Your task to perform on an android device: Empty the shopping cart on target. Search for usb-c to usb-b on target, select the first entry, and add it to the cart. Image 0: 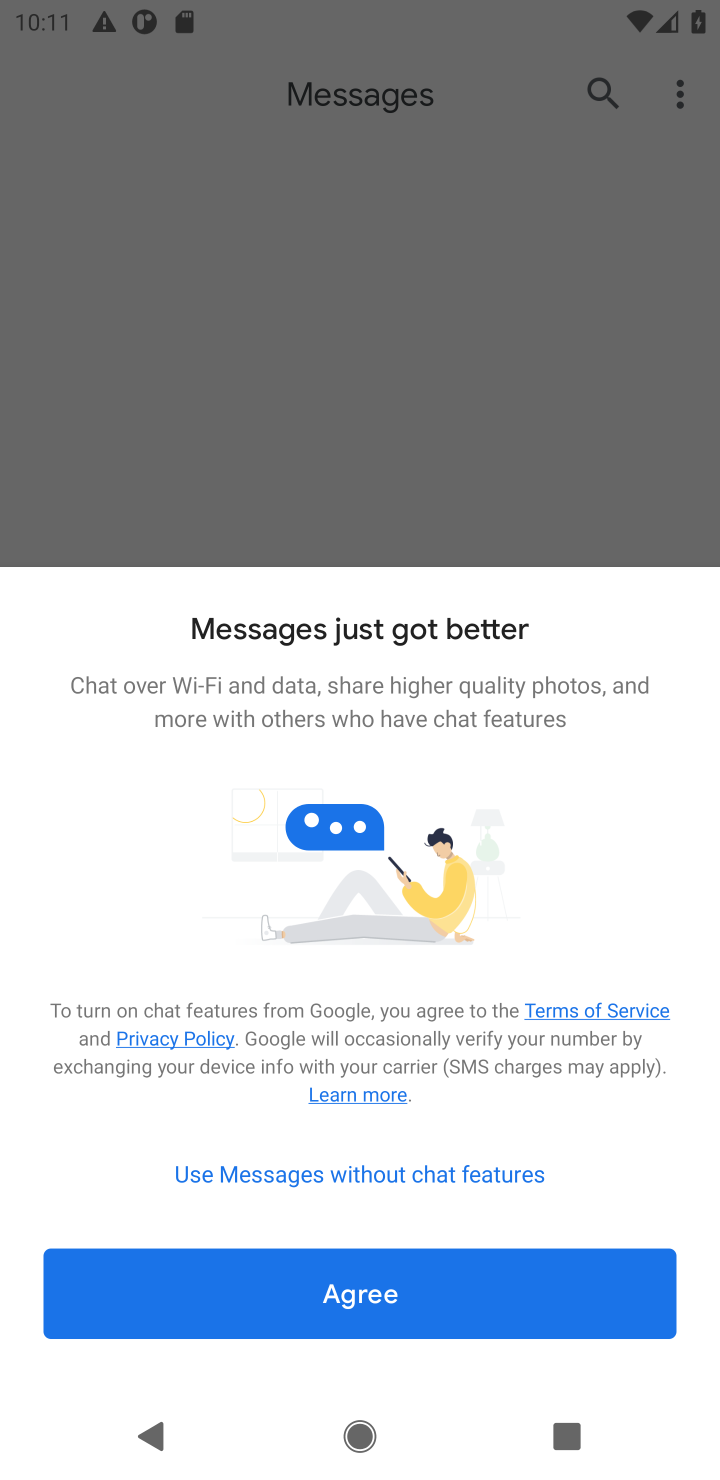
Step 0: press home button
Your task to perform on an android device: Empty the shopping cart on target. Search for usb-c to usb-b on target, select the first entry, and add it to the cart. Image 1: 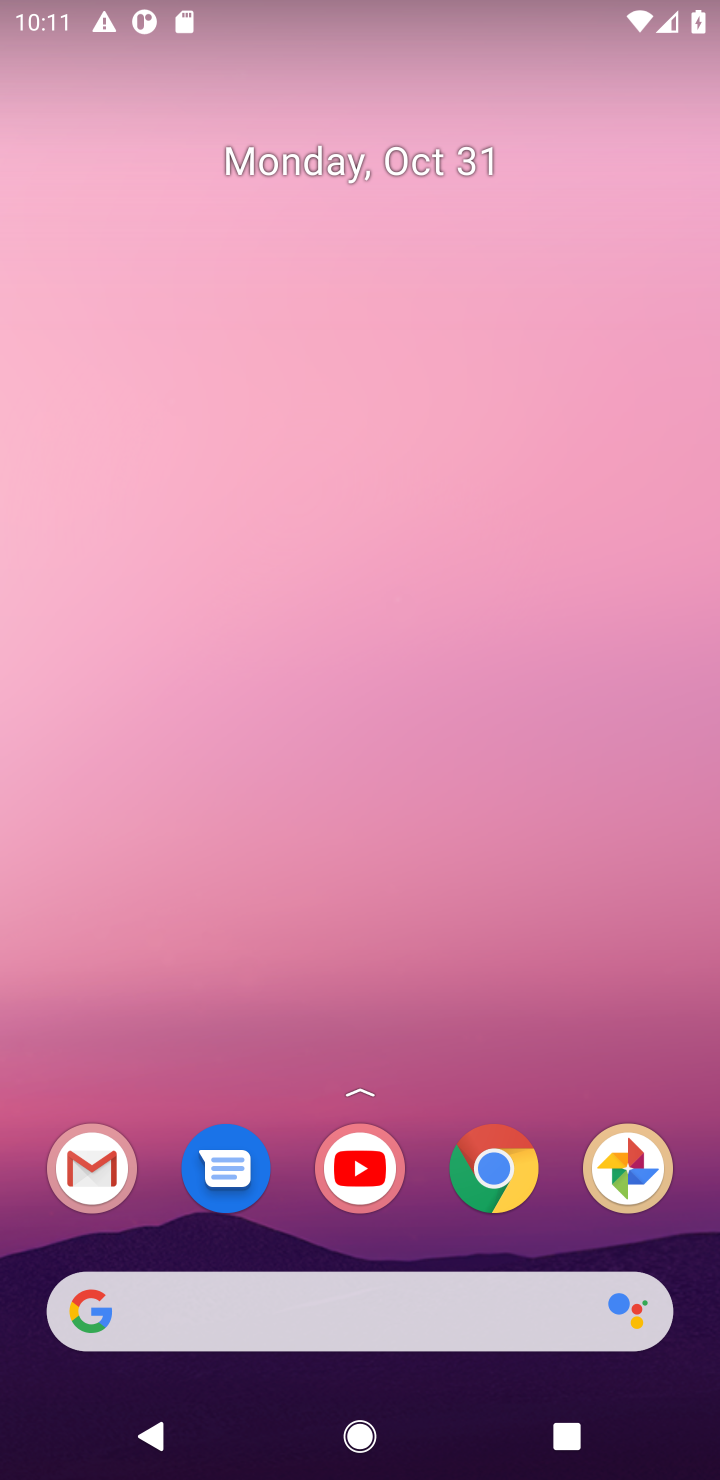
Step 1: click (504, 1180)
Your task to perform on an android device: Empty the shopping cart on target. Search for usb-c to usb-b on target, select the first entry, and add it to the cart. Image 2: 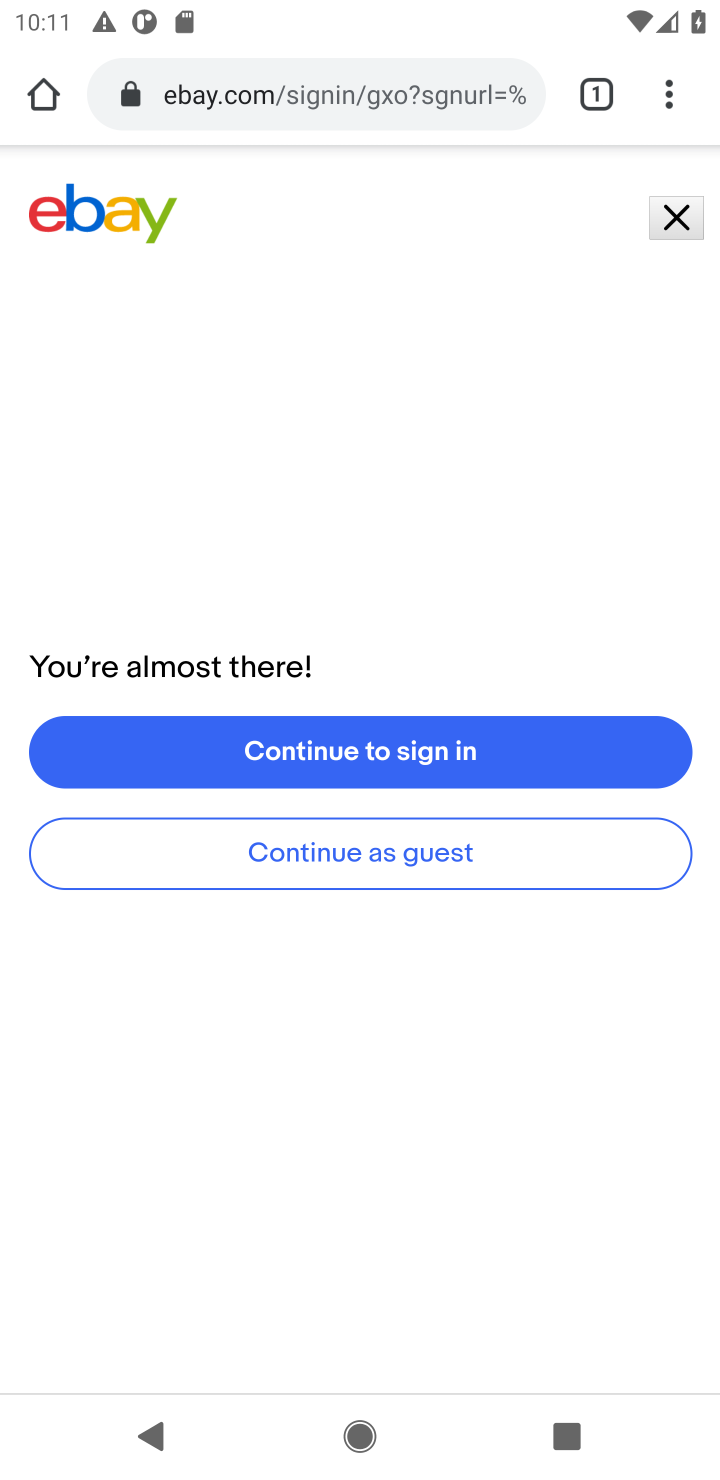
Step 2: click (278, 102)
Your task to perform on an android device: Empty the shopping cart on target. Search for usb-c to usb-b on target, select the first entry, and add it to the cart. Image 3: 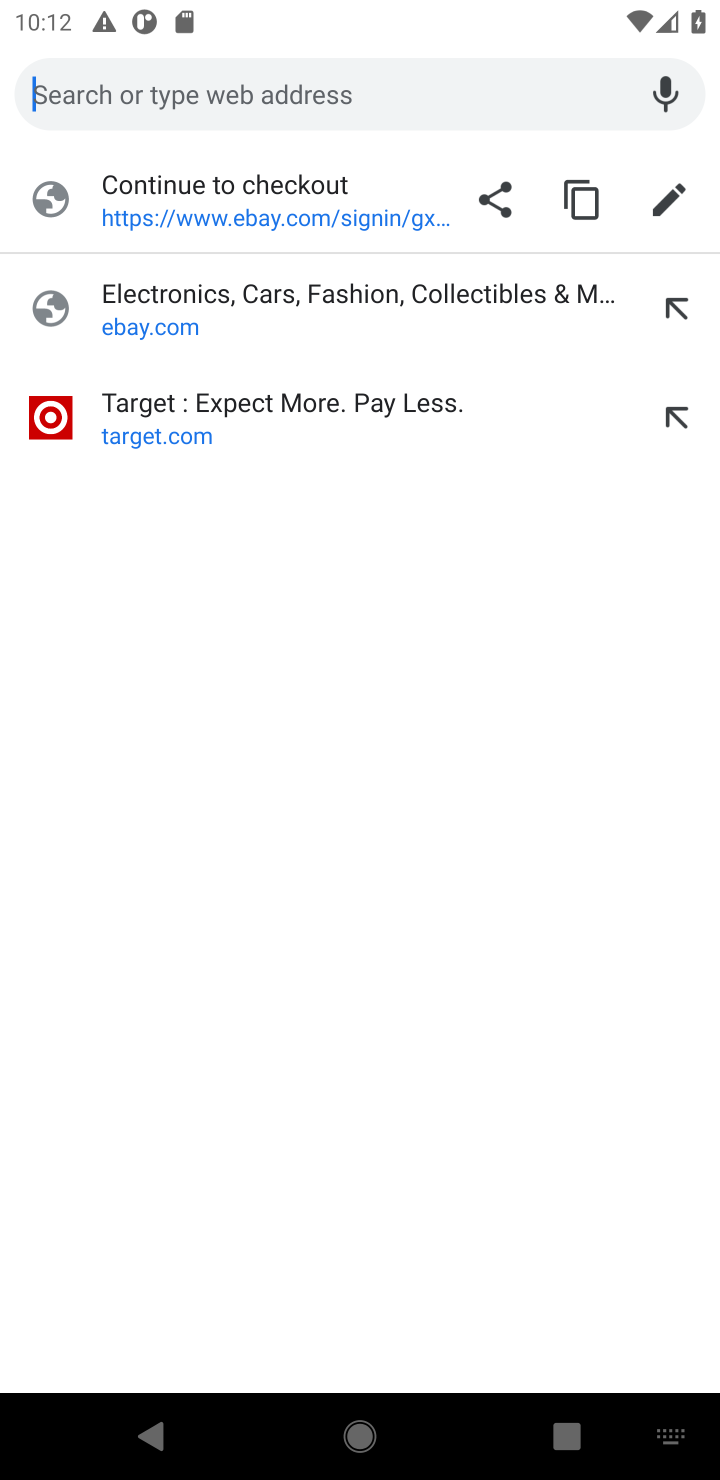
Step 3: type "target"
Your task to perform on an android device: Empty the shopping cart on target. Search for usb-c to usb-b on target, select the first entry, and add it to the cart. Image 4: 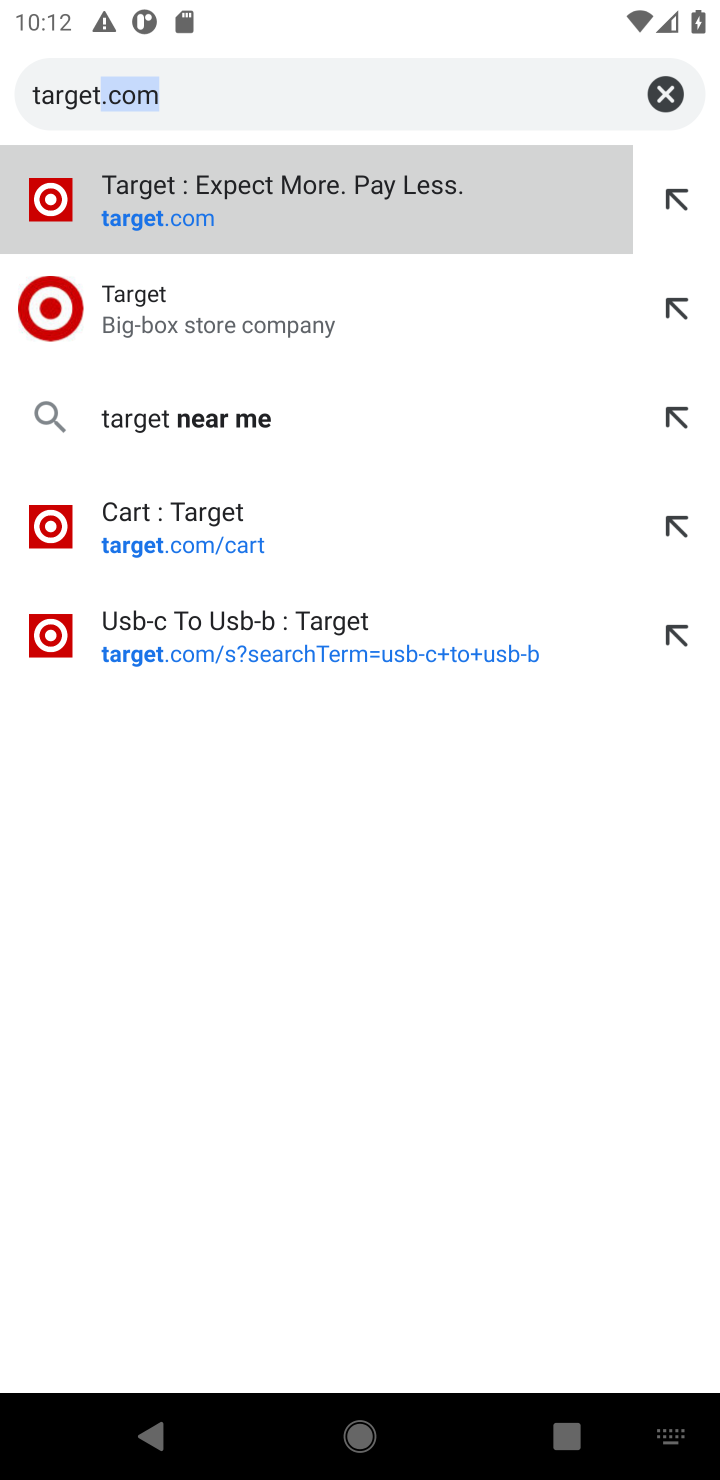
Step 4: click (359, 218)
Your task to perform on an android device: Empty the shopping cart on target. Search for usb-c to usb-b on target, select the first entry, and add it to the cart. Image 5: 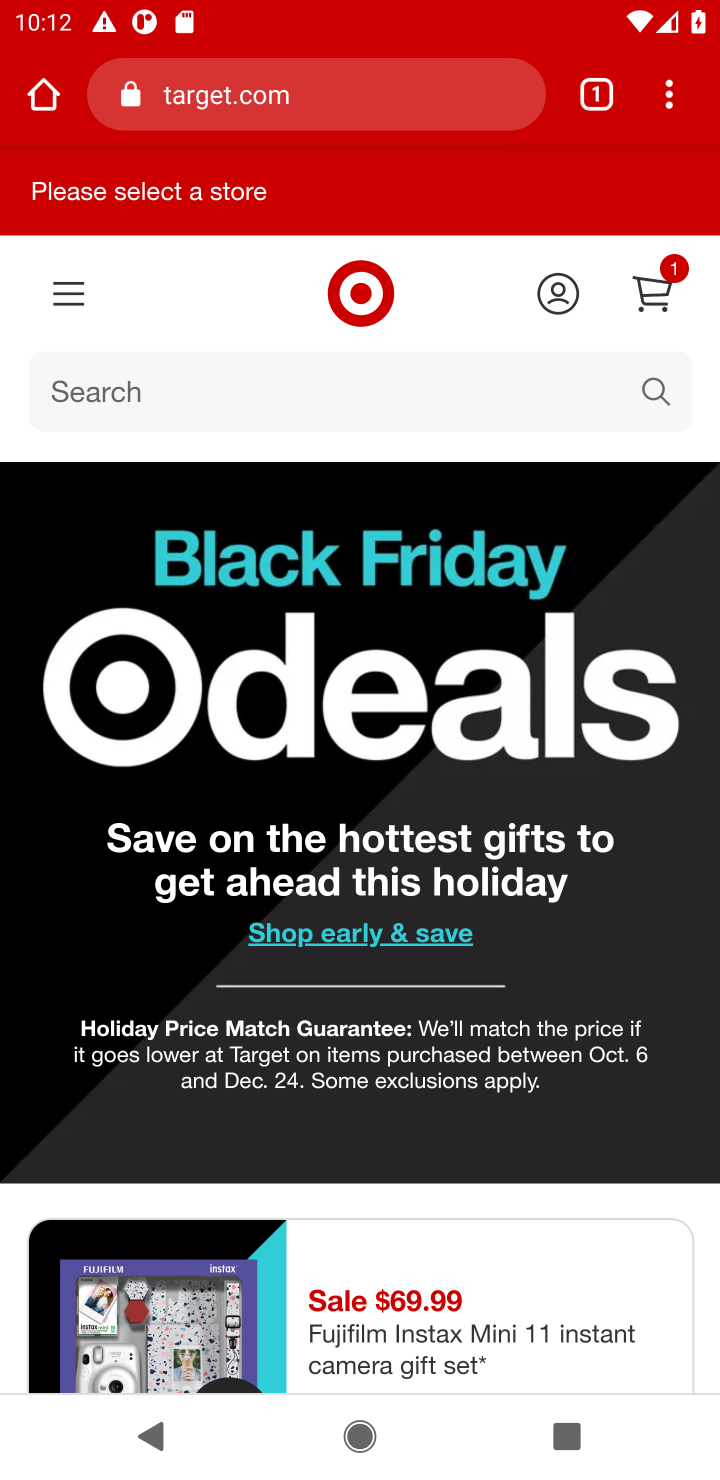
Step 5: click (662, 289)
Your task to perform on an android device: Empty the shopping cart on target. Search for usb-c to usb-b on target, select the first entry, and add it to the cart. Image 6: 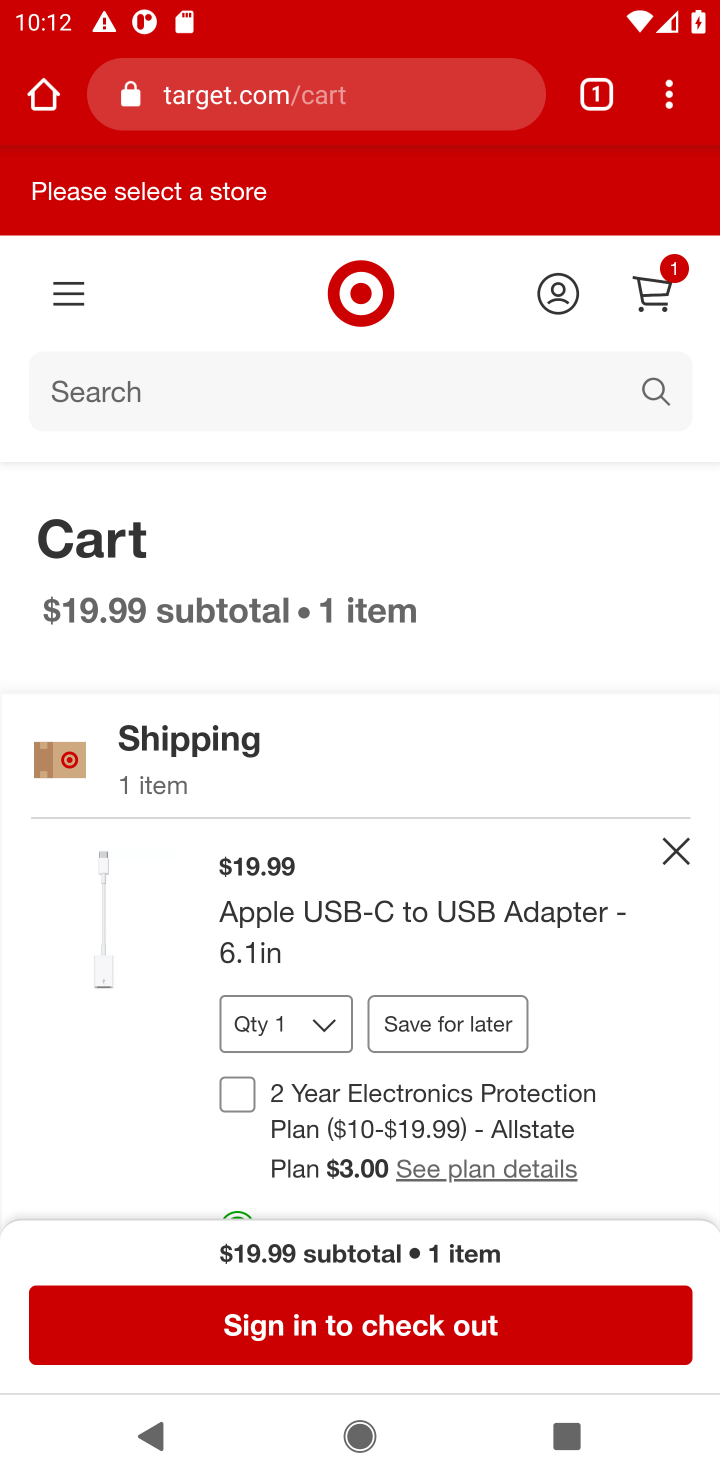
Step 6: click (667, 847)
Your task to perform on an android device: Empty the shopping cart on target. Search for usb-c to usb-b on target, select the first entry, and add it to the cart. Image 7: 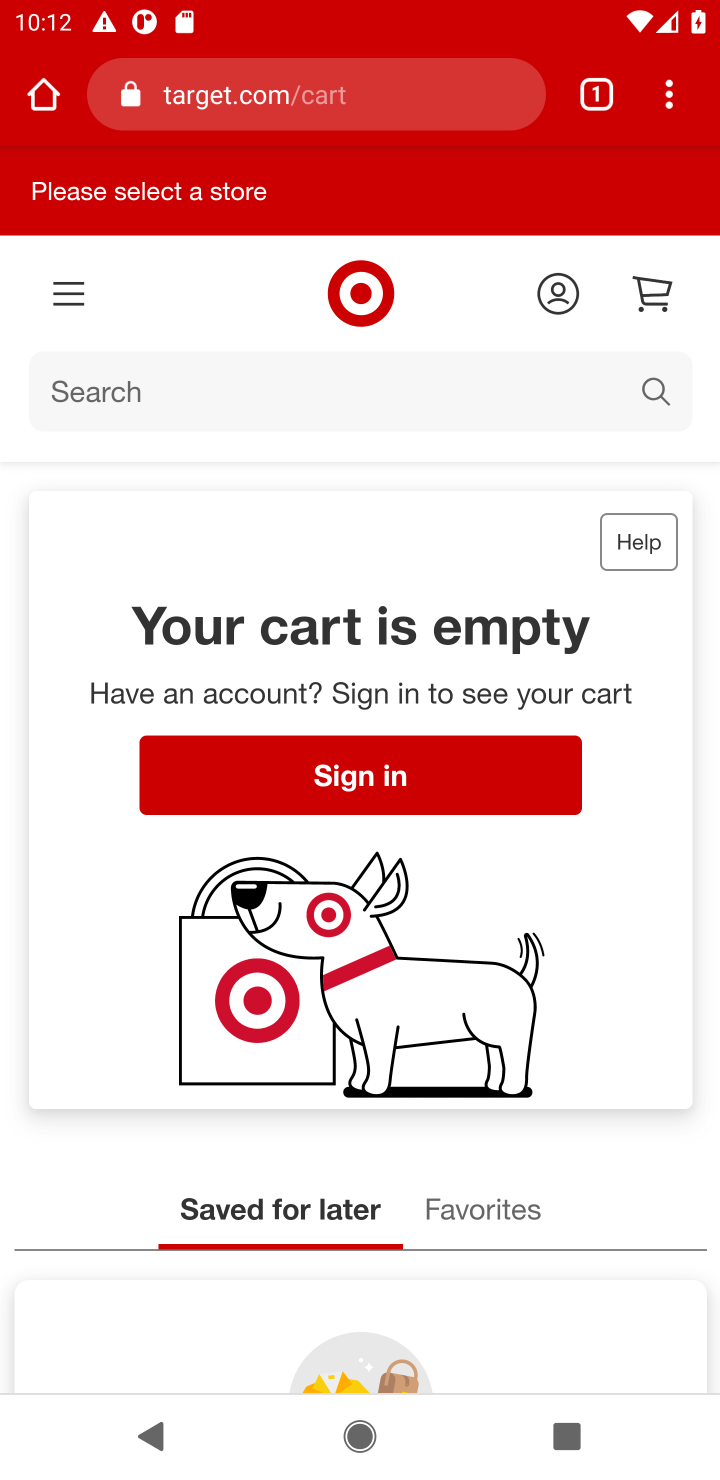
Step 7: click (204, 395)
Your task to perform on an android device: Empty the shopping cart on target. Search for usb-c to usb-b on target, select the first entry, and add it to the cart. Image 8: 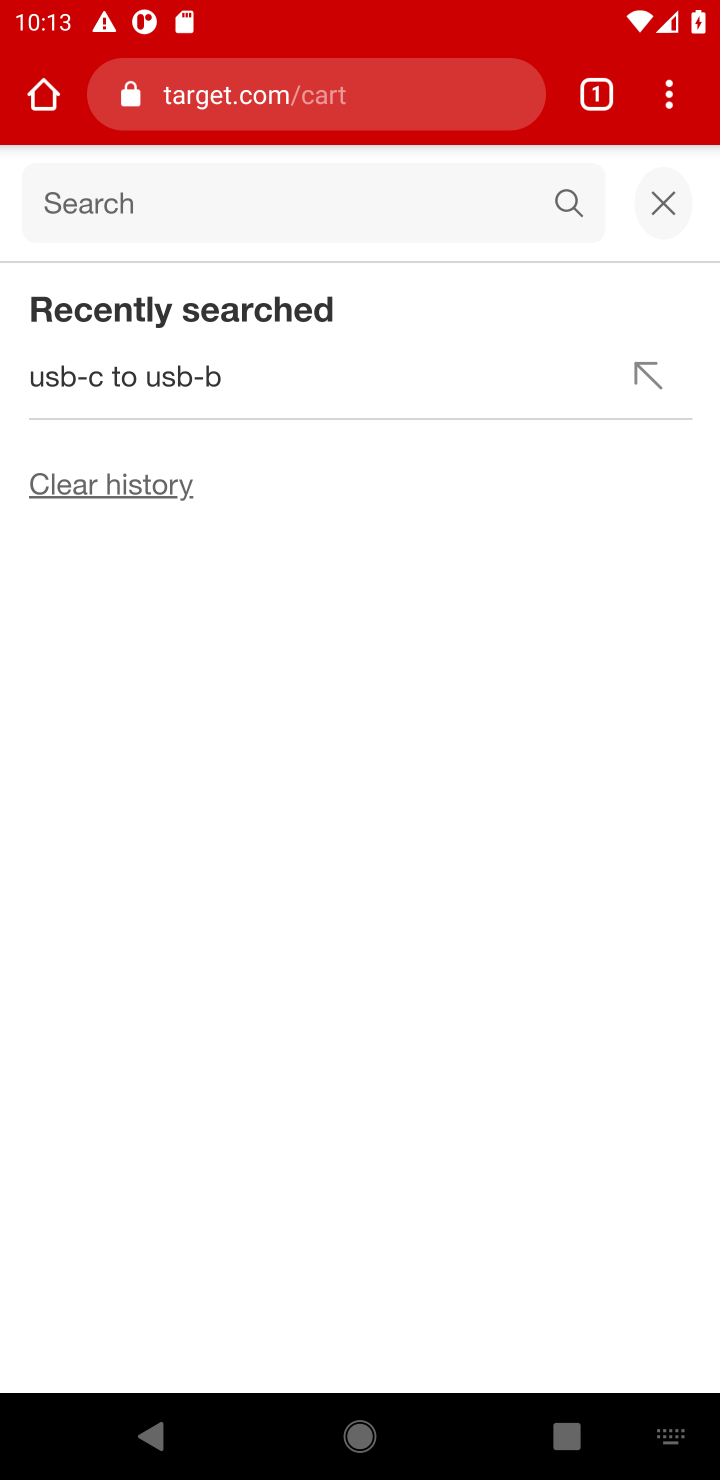
Step 8: type "usb-c to usb-b"
Your task to perform on an android device: Empty the shopping cart on target. Search for usb-c to usb-b on target, select the first entry, and add it to the cart. Image 9: 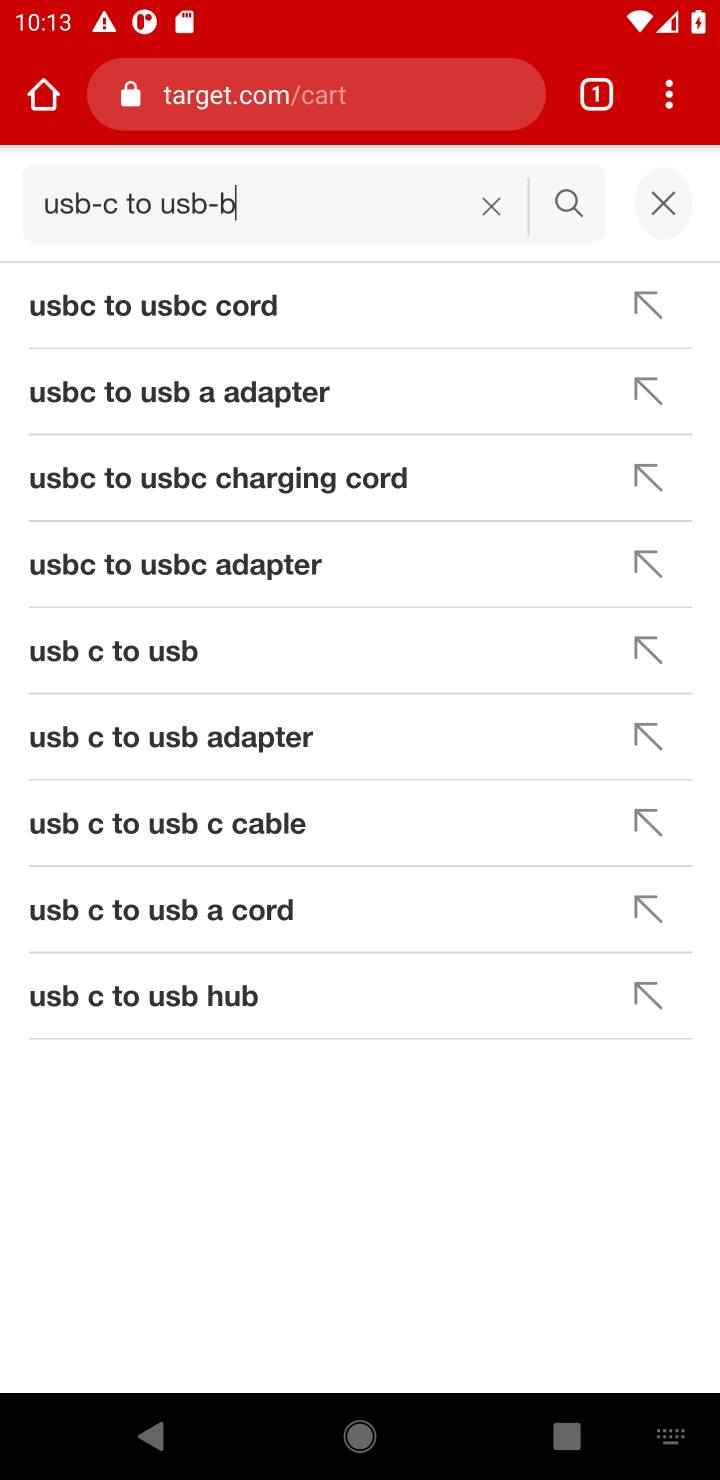
Step 9: press enter
Your task to perform on an android device: Empty the shopping cart on target. Search for usb-c to usb-b on target, select the first entry, and add it to the cart. Image 10: 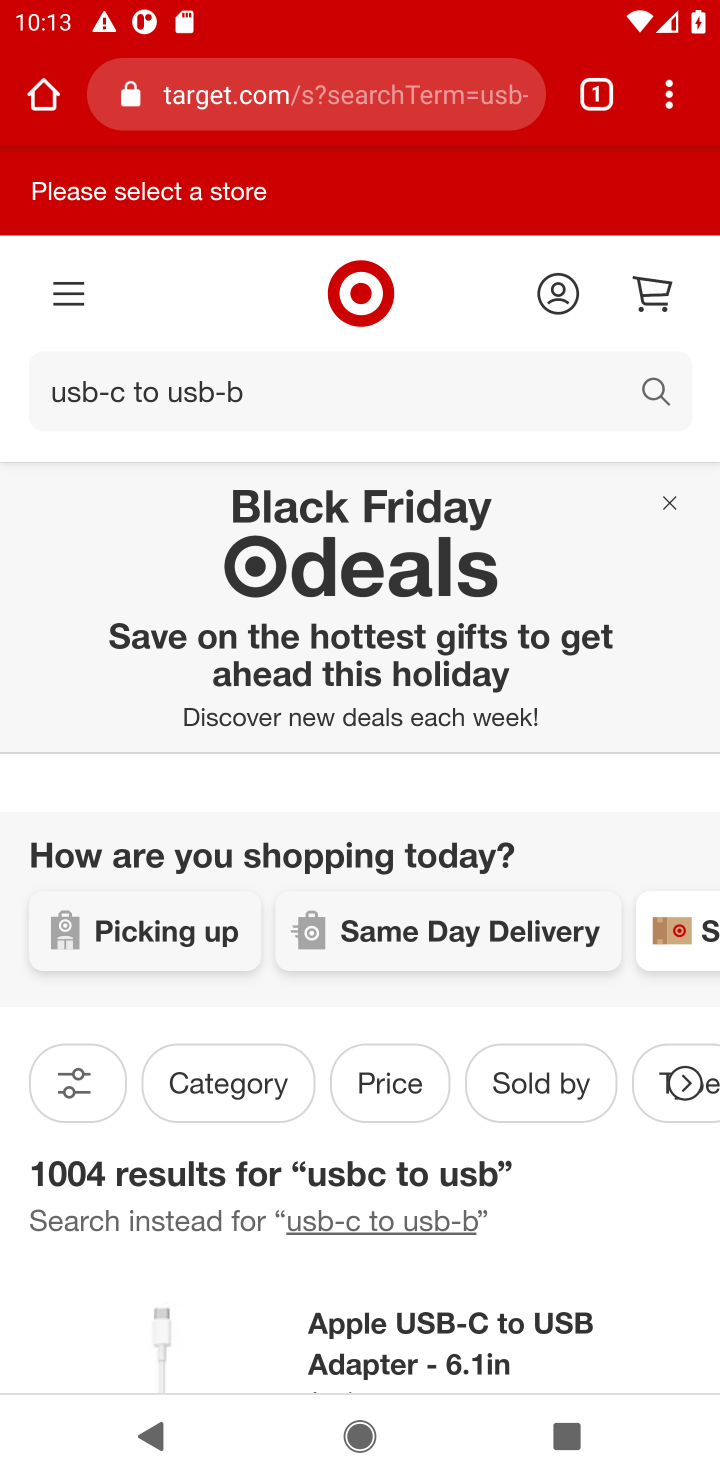
Step 10: drag from (548, 1186) to (516, 913)
Your task to perform on an android device: Empty the shopping cart on target. Search for usb-c to usb-b on target, select the first entry, and add it to the cart. Image 11: 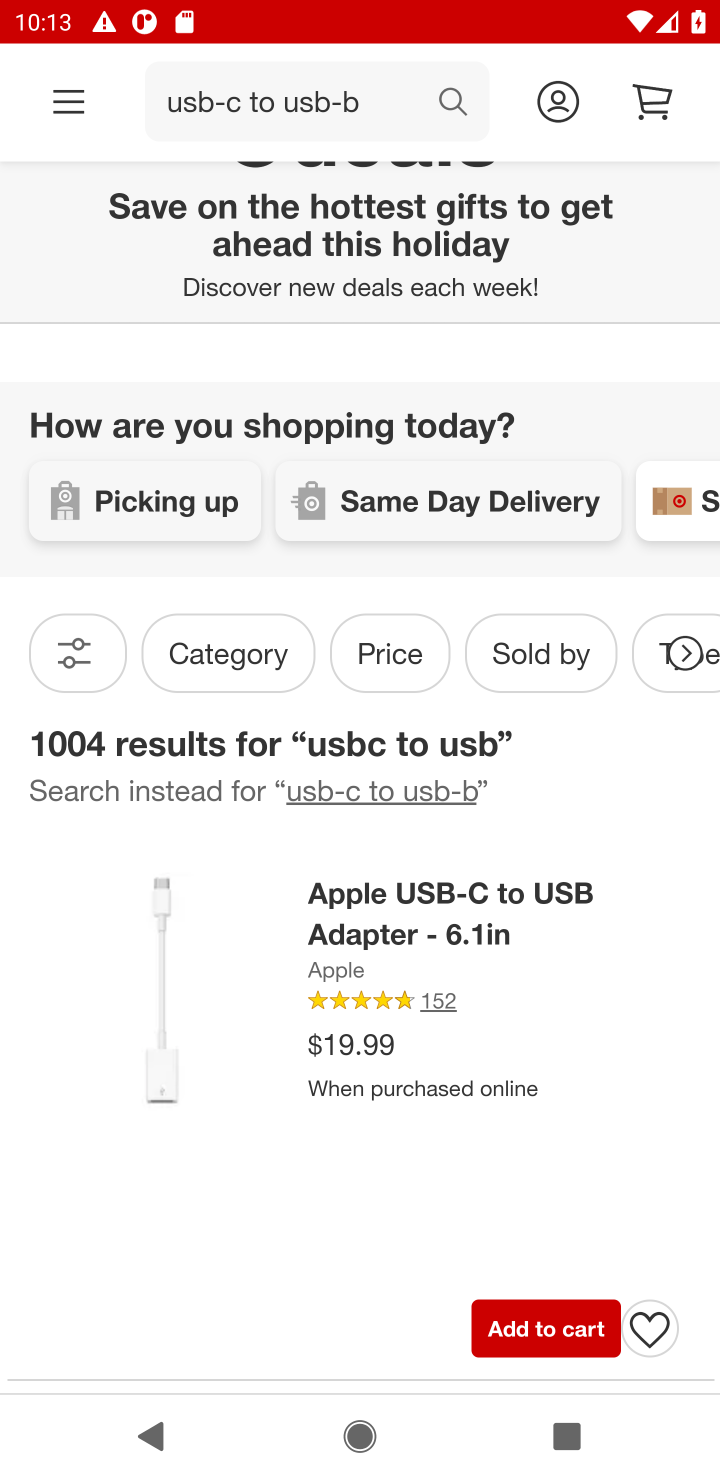
Step 11: click (400, 1100)
Your task to perform on an android device: Empty the shopping cart on target. Search for usb-c to usb-b on target, select the first entry, and add it to the cart. Image 12: 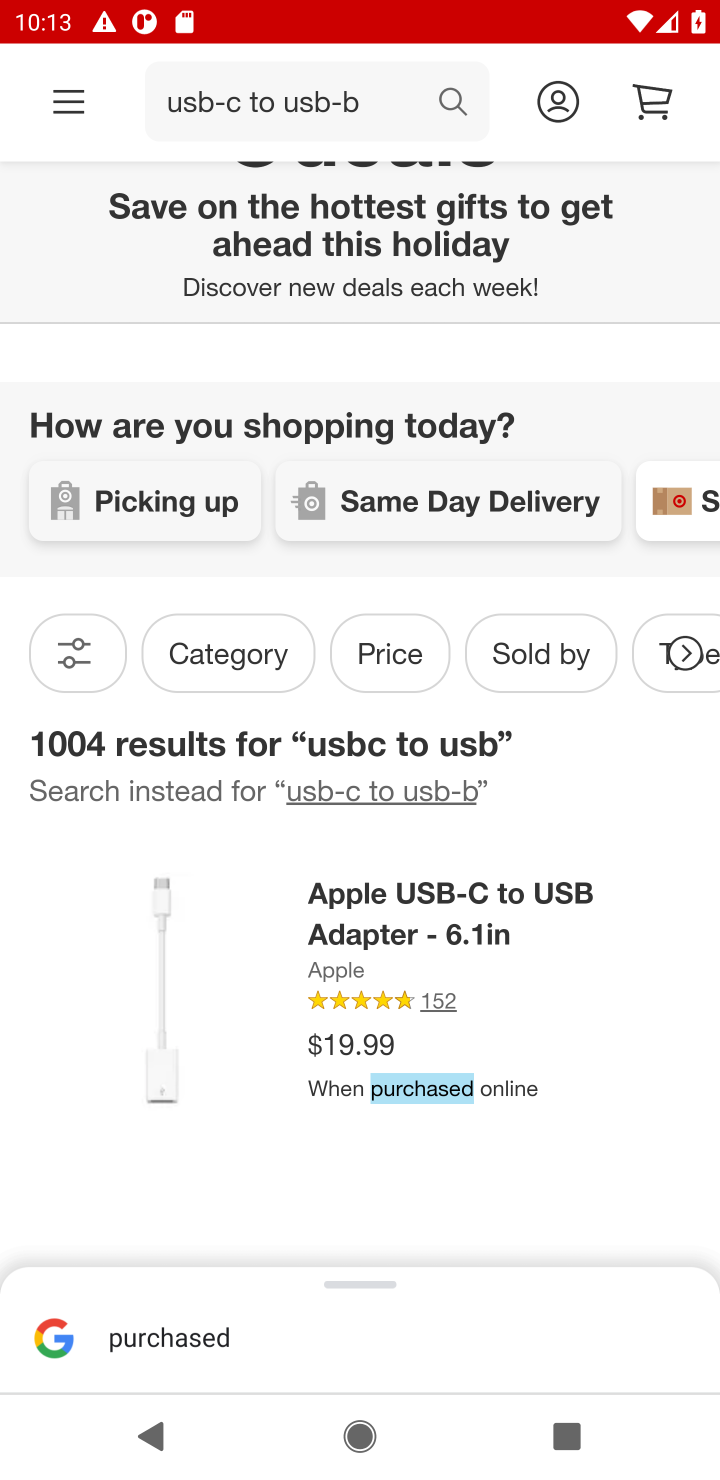
Step 12: click (353, 895)
Your task to perform on an android device: Empty the shopping cart on target. Search for usb-c to usb-b on target, select the first entry, and add it to the cart. Image 13: 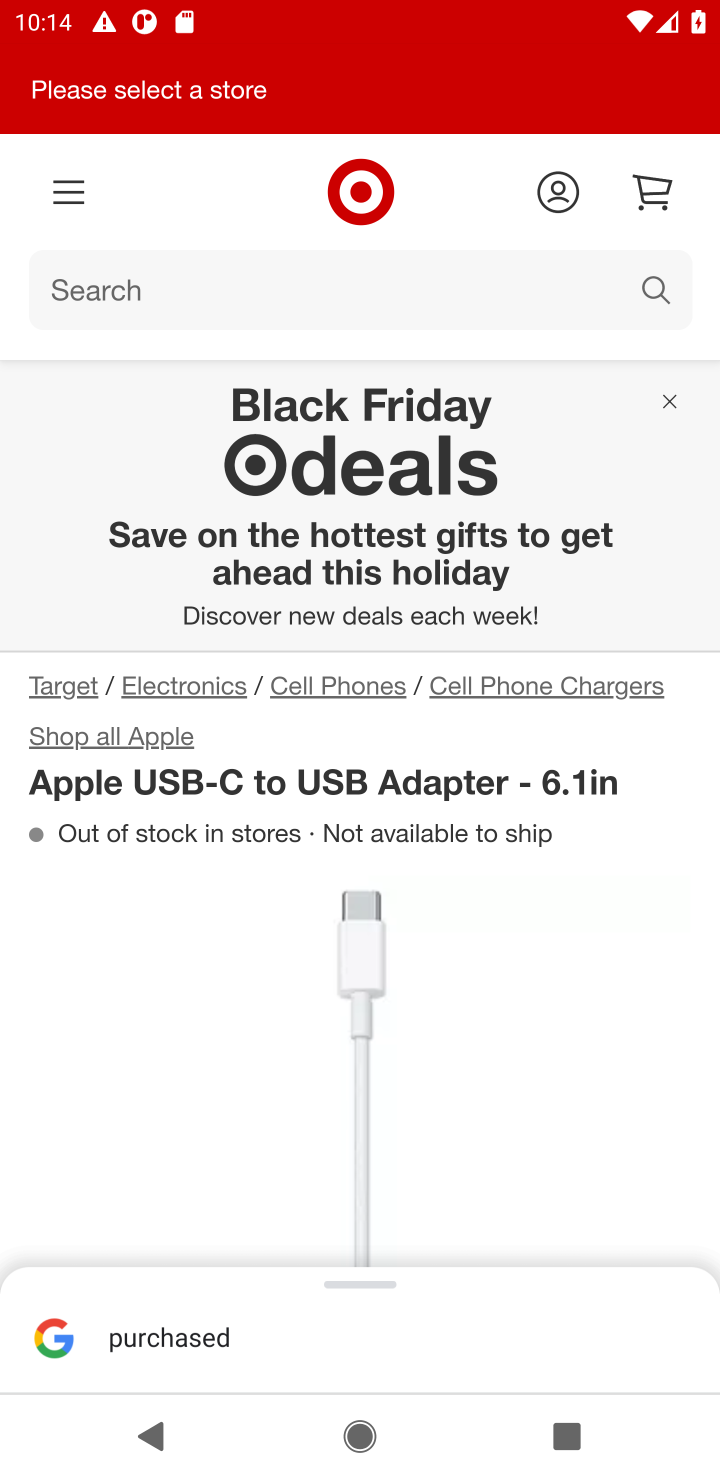
Step 13: drag from (623, 1041) to (574, 474)
Your task to perform on an android device: Empty the shopping cart on target. Search for usb-c to usb-b on target, select the first entry, and add it to the cart. Image 14: 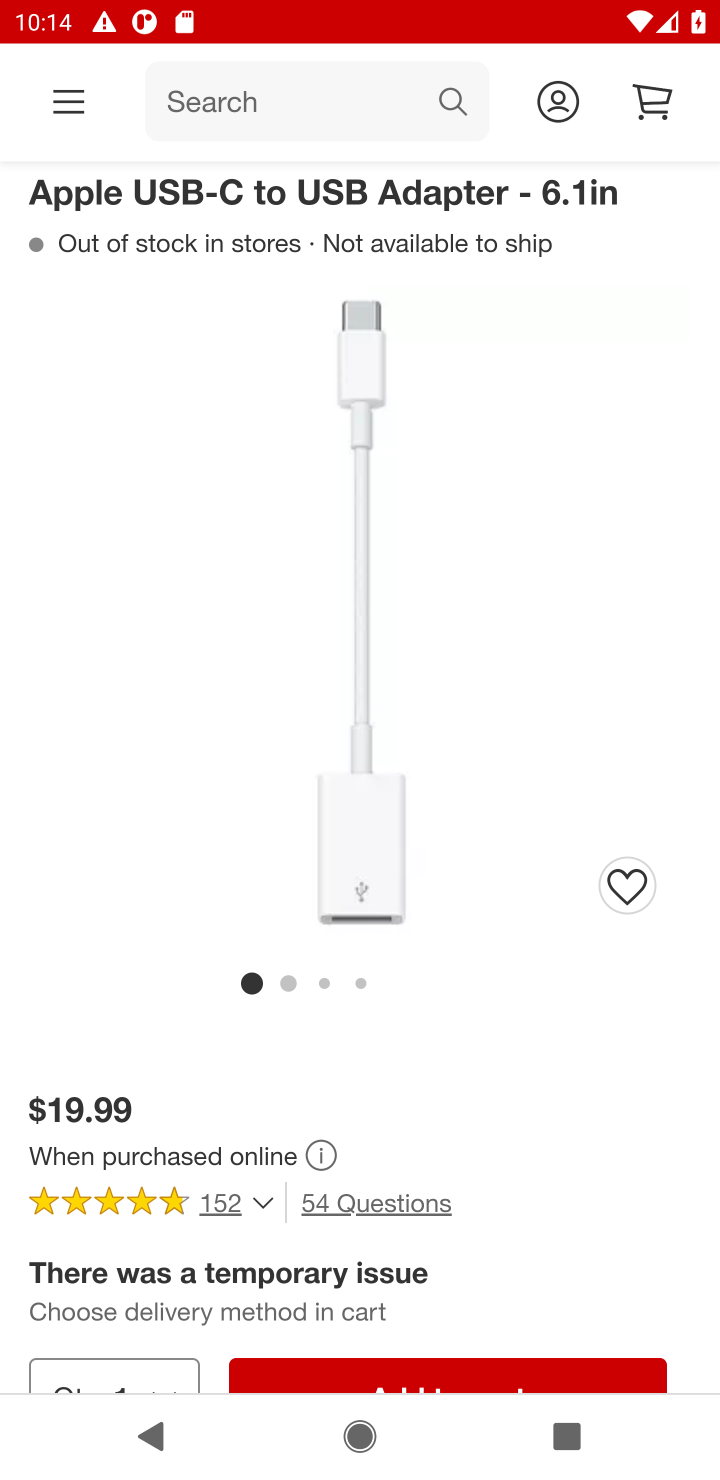
Step 14: drag from (537, 1277) to (518, 984)
Your task to perform on an android device: Empty the shopping cart on target. Search for usb-c to usb-b on target, select the first entry, and add it to the cart. Image 15: 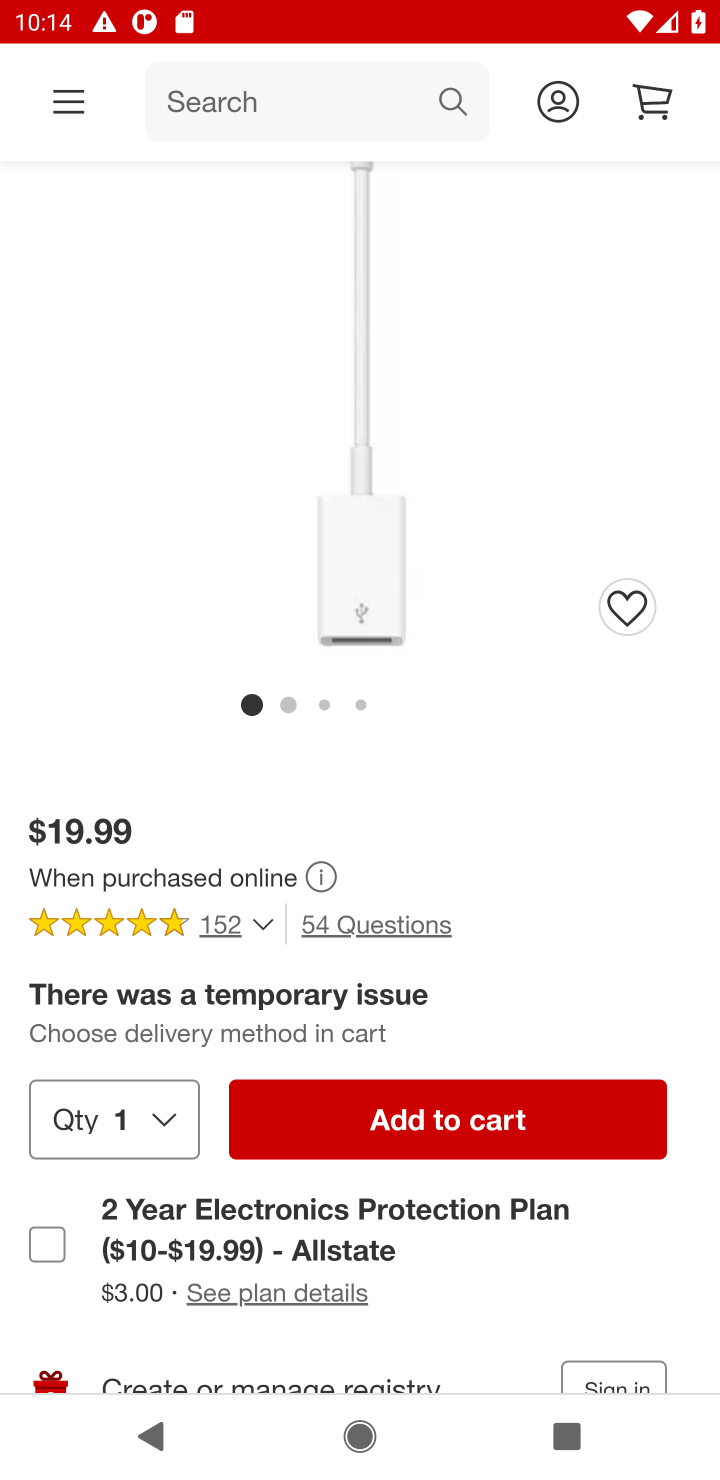
Step 15: click (462, 1128)
Your task to perform on an android device: Empty the shopping cart on target. Search for usb-c to usb-b on target, select the first entry, and add it to the cart. Image 16: 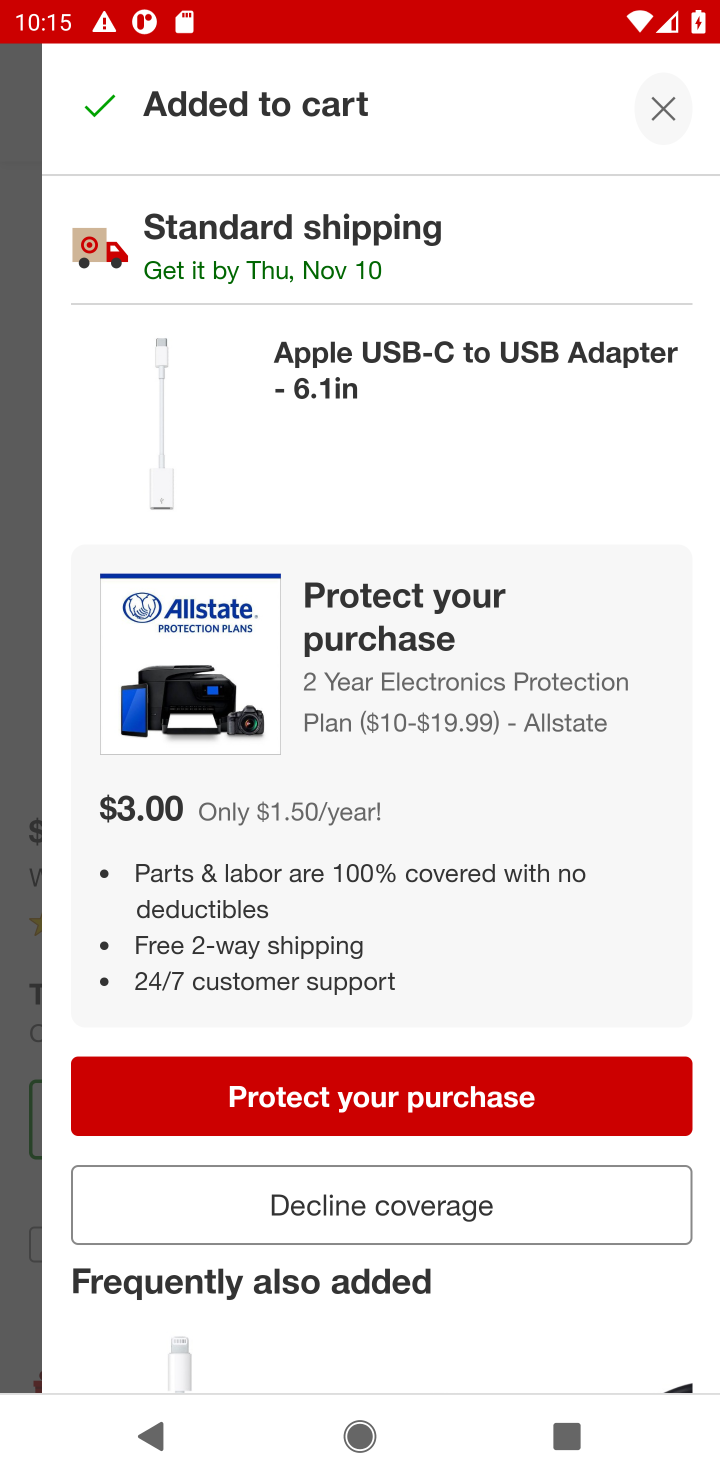
Step 16: click (398, 1207)
Your task to perform on an android device: Empty the shopping cart on target. Search for usb-c to usb-b on target, select the first entry, and add it to the cart. Image 17: 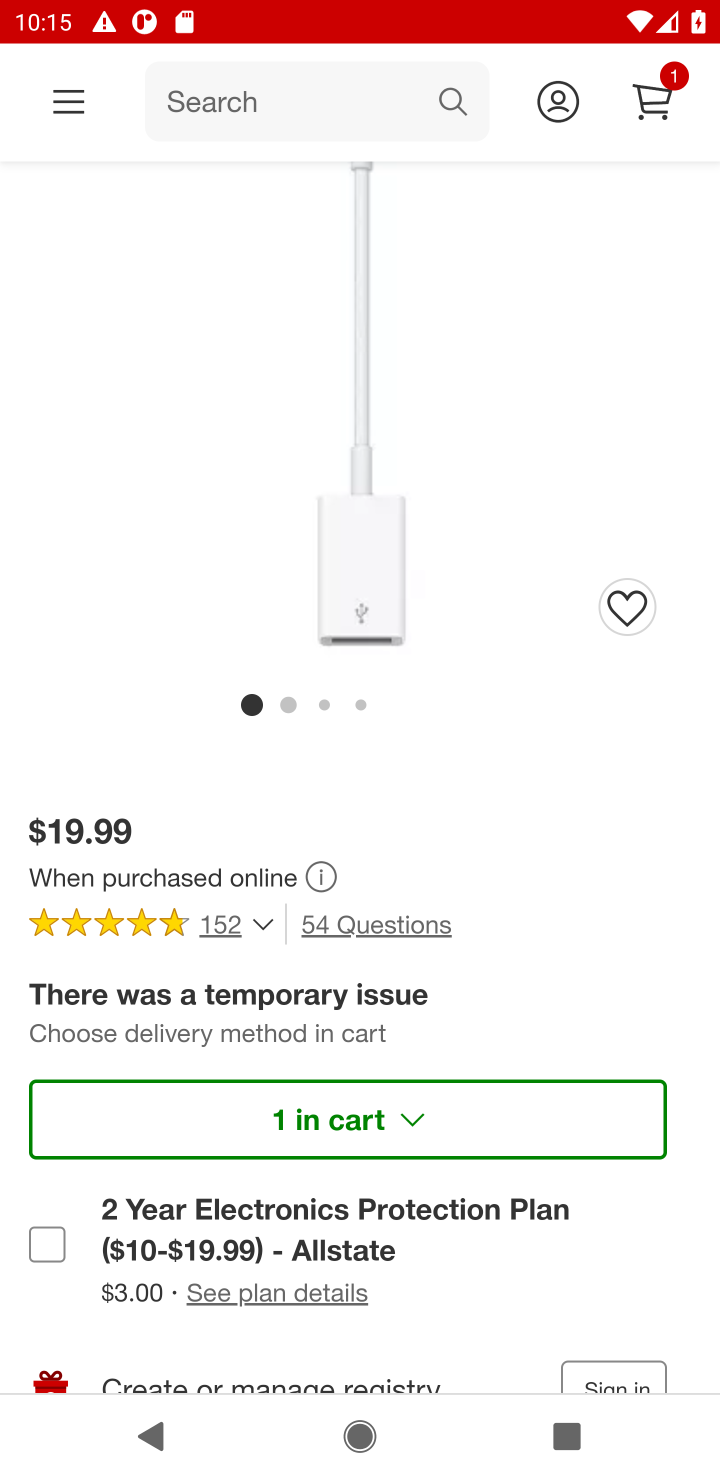
Step 17: task complete